Your task to perform on an android device: turn off data saver in the chrome app Image 0: 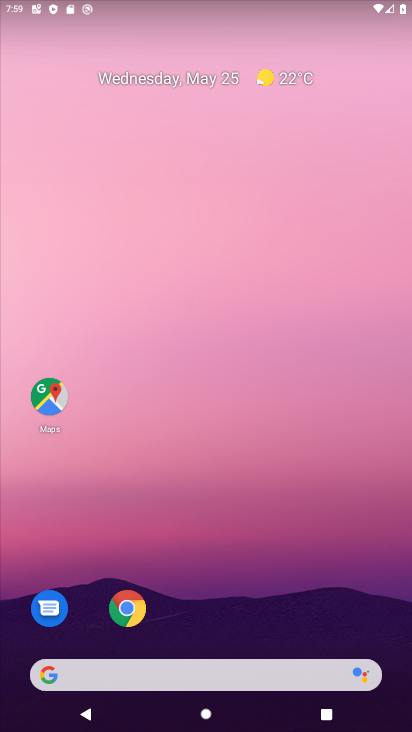
Step 0: click (125, 608)
Your task to perform on an android device: turn off data saver in the chrome app Image 1: 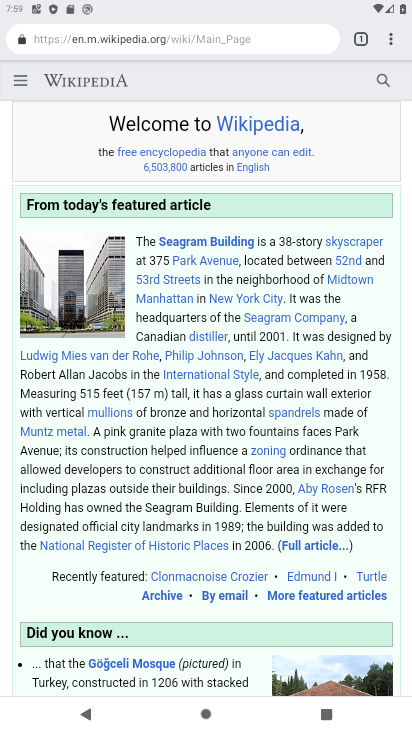
Step 1: click (391, 40)
Your task to perform on an android device: turn off data saver in the chrome app Image 2: 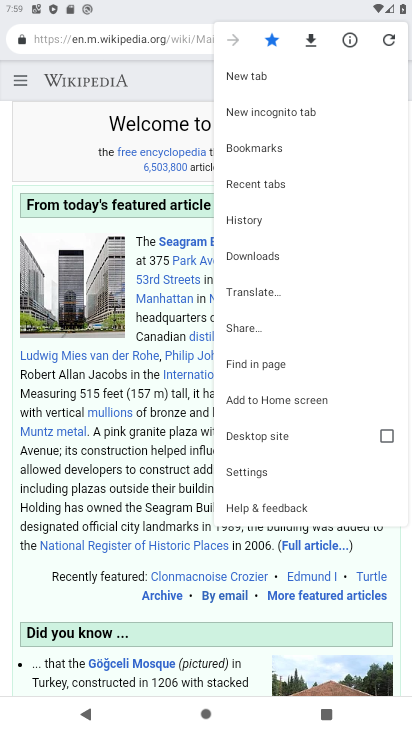
Step 2: click (259, 468)
Your task to perform on an android device: turn off data saver in the chrome app Image 3: 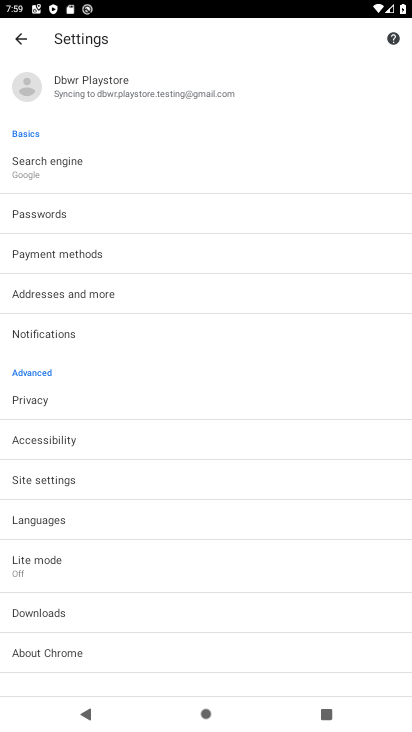
Step 3: drag from (86, 542) to (127, 480)
Your task to perform on an android device: turn off data saver in the chrome app Image 4: 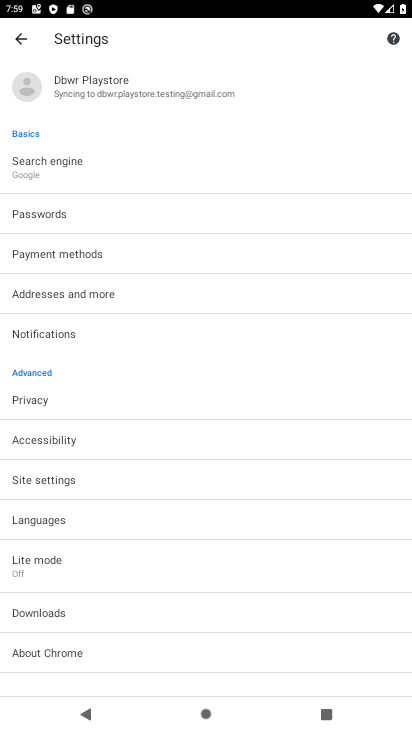
Step 4: click (58, 557)
Your task to perform on an android device: turn off data saver in the chrome app Image 5: 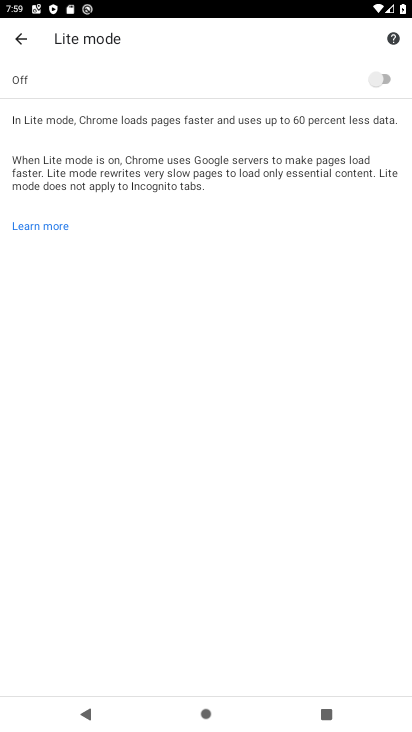
Step 5: task complete